Your task to perform on an android device: Open Yahoo.com Image 0: 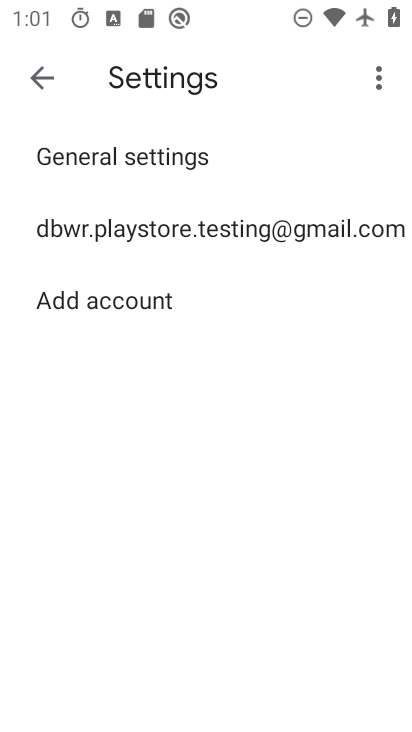
Step 0: press home button
Your task to perform on an android device: Open Yahoo.com Image 1: 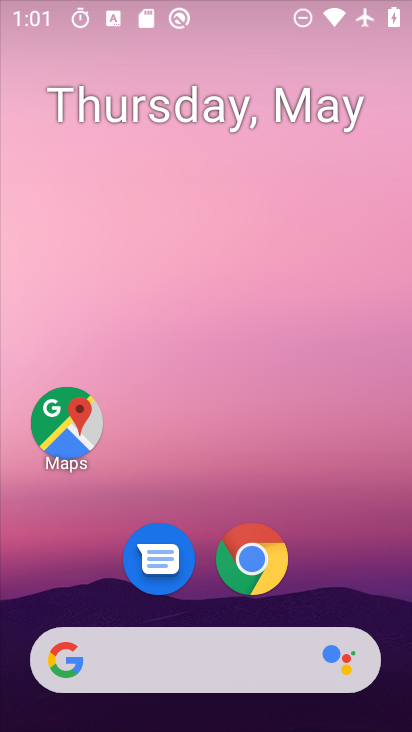
Step 1: drag from (191, 615) to (186, 228)
Your task to perform on an android device: Open Yahoo.com Image 2: 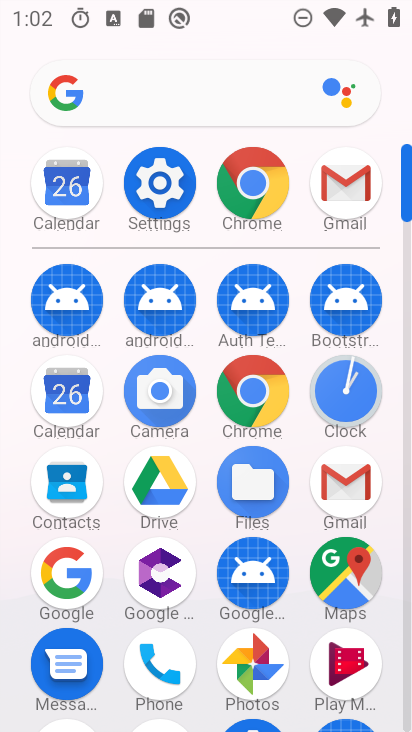
Step 2: click (227, 194)
Your task to perform on an android device: Open Yahoo.com Image 3: 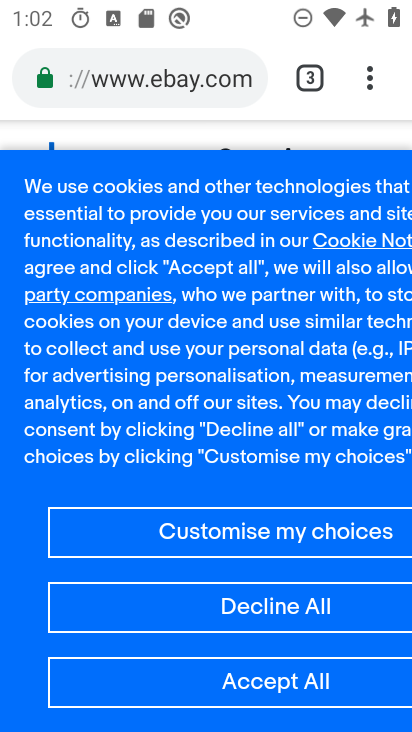
Step 3: click (209, 75)
Your task to perform on an android device: Open Yahoo.com Image 4: 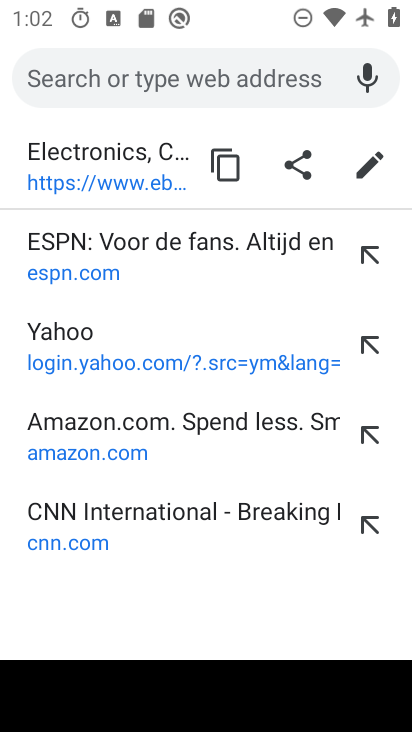
Step 4: click (123, 347)
Your task to perform on an android device: Open Yahoo.com Image 5: 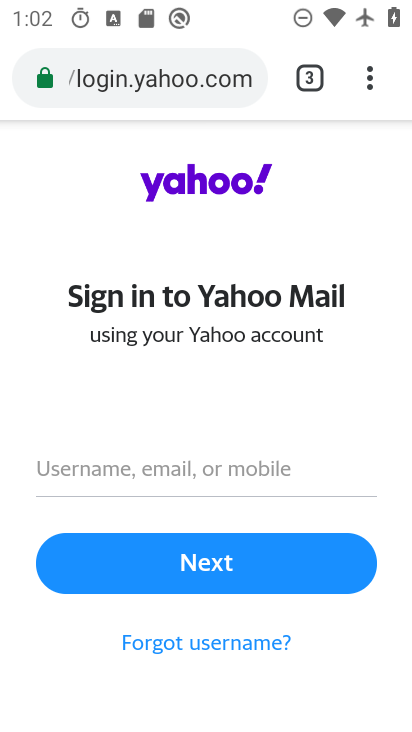
Step 5: task complete